Your task to perform on an android device: Open network settings Image 0: 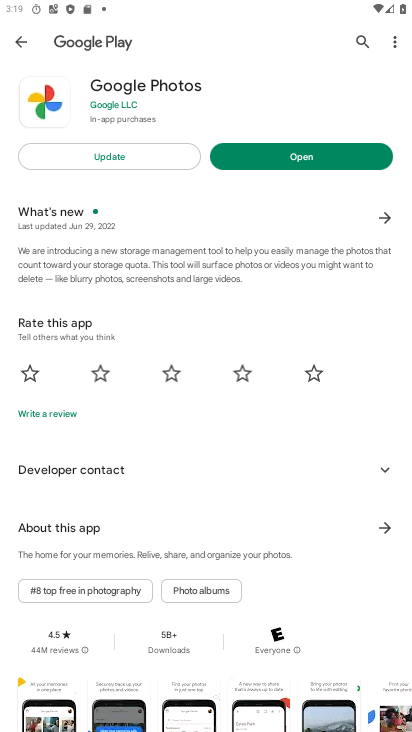
Step 0: press home button
Your task to perform on an android device: Open network settings Image 1: 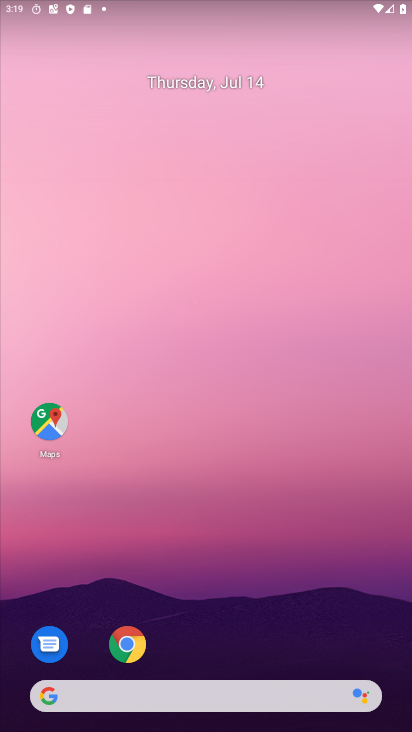
Step 1: drag from (55, 688) to (257, 221)
Your task to perform on an android device: Open network settings Image 2: 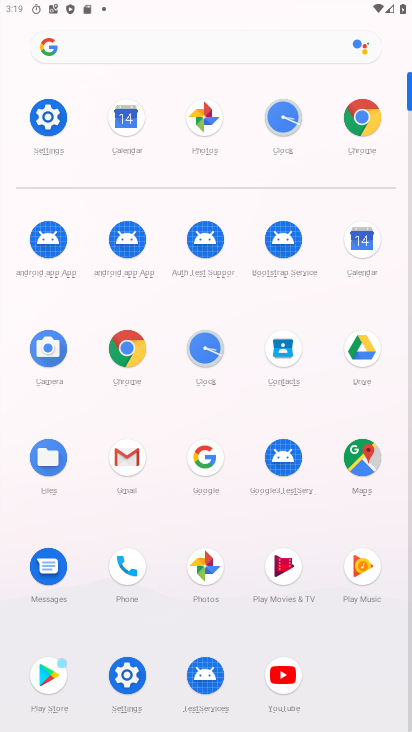
Step 2: click (120, 684)
Your task to perform on an android device: Open network settings Image 3: 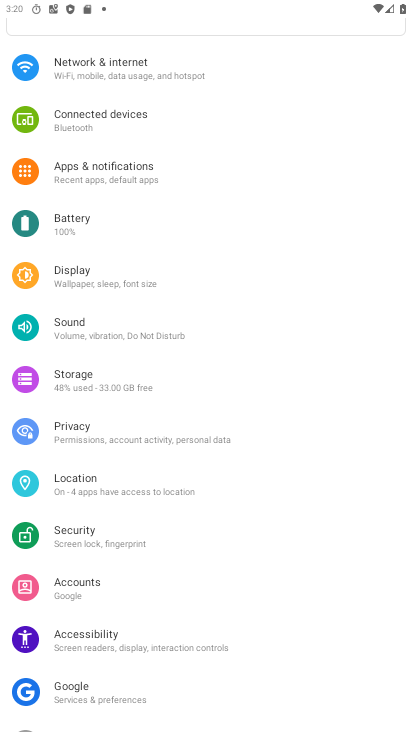
Step 3: click (155, 77)
Your task to perform on an android device: Open network settings Image 4: 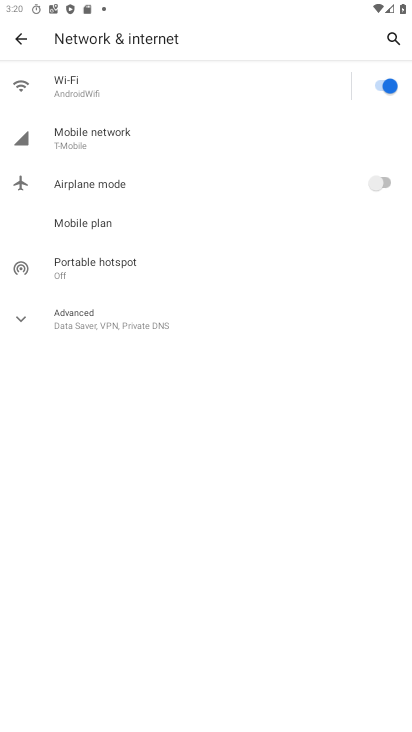
Step 4: task complete